Your task to perform on an android device: Open location settings Image 0: 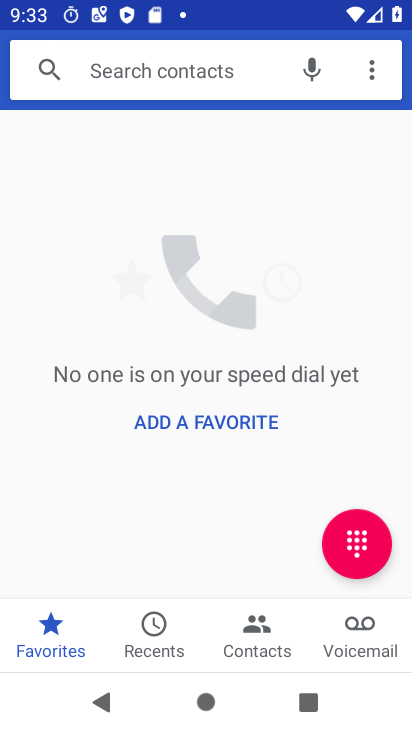
Step 0: press home button
Your task to perform on an android device: Open location settings Image 1: 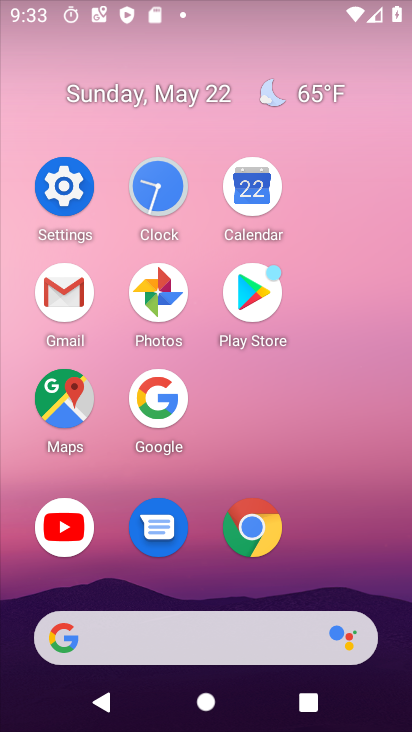
Step 1: click (84, 203)
Your task to perform on an android device: Open location settings Image 2: 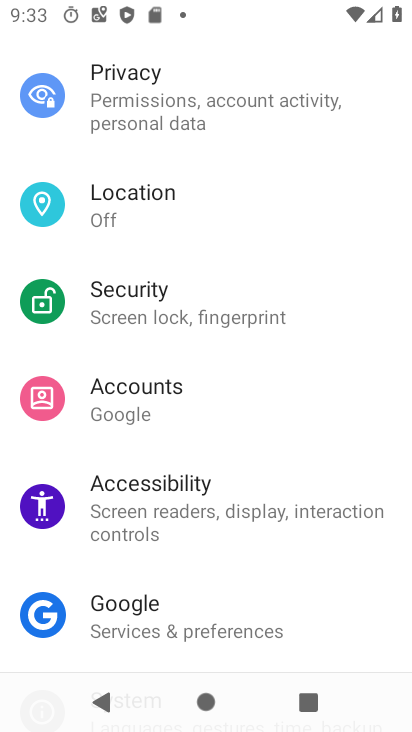
Step 2: click (231, 202)
Your task to perform on an android device: Open location settings Image 3: 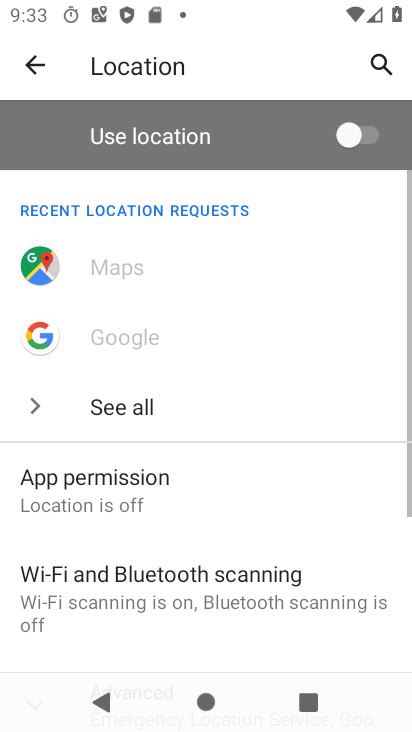
Step 3: task complete